Your task to perform on an android device: move an email to a new category in the gmail app Image 0: 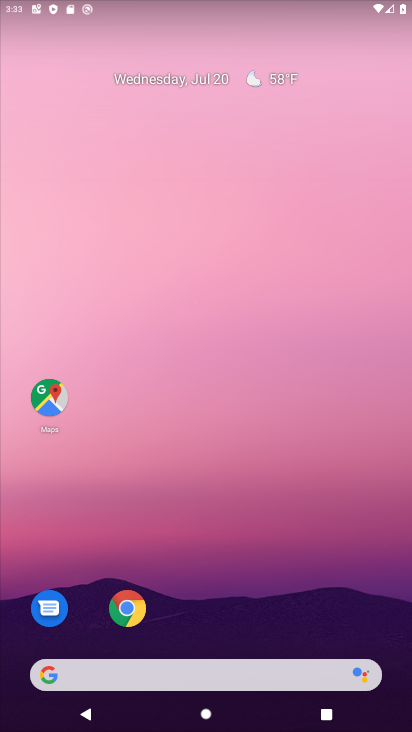
Step 0: drag from (262, 632) to (10, 231)
Your task to perform on an android device: move an email to a new category in the gmail app Image 1: 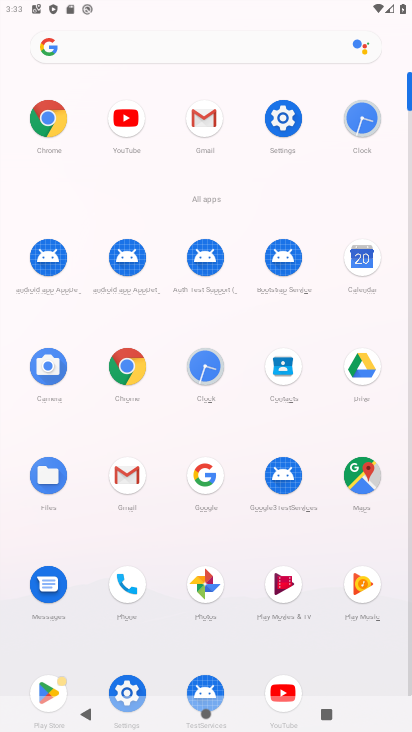
Step 1: click (215, 146)
Your task to perform on an android device: move an email to a new category in the gmail app Image 2: 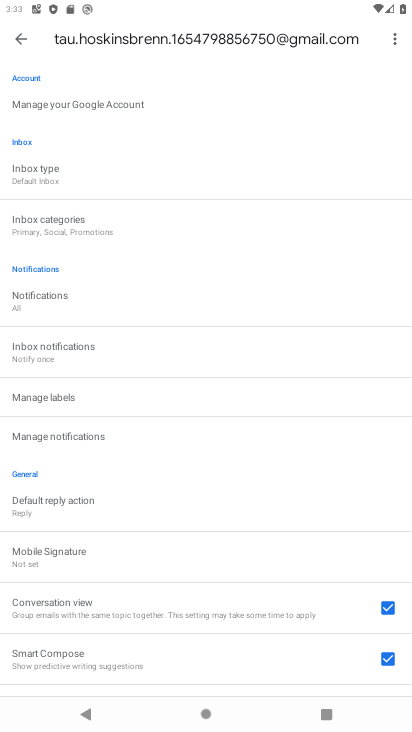
Step 2: task complete